Your task to perform on an android device: choose inbox layout in the gmail app Image 0: 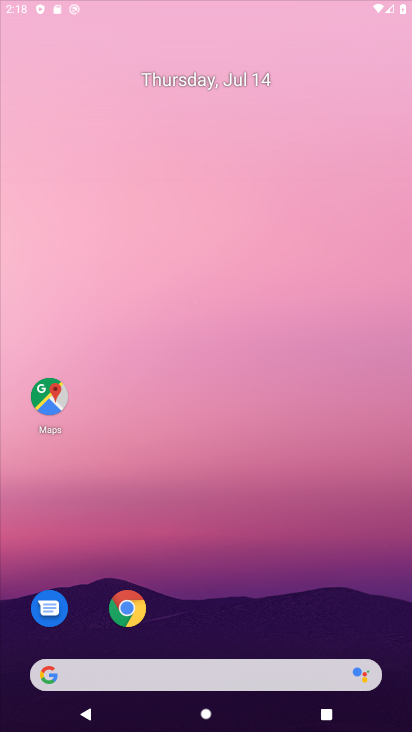
Step 0: press home button
Your task to perform on an android device: choose inbox layout in the gmail app Image 1: 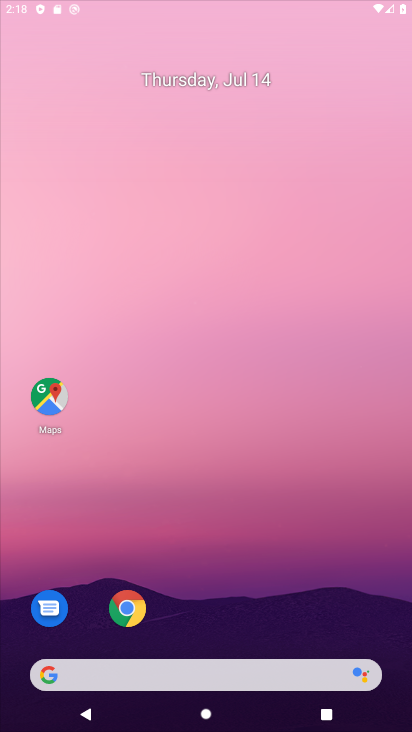
Step 1: click (285, 170)
Your task to perform on an android device: choose inbox layout in the gmail app Image 2: 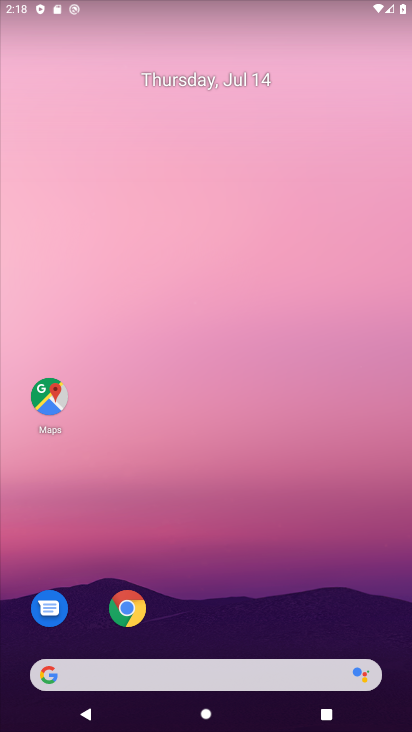
Step 2: drag from (202, 612) to (236, 178)
Your task to perform on an android device: choose inbox layout in the gmail app Image 3: 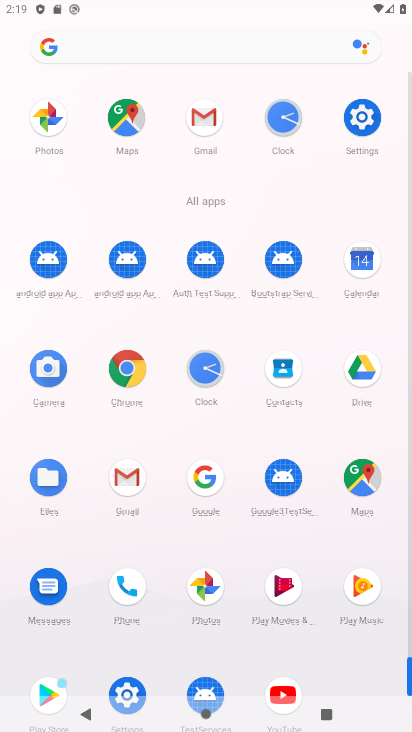
Step 3: click (200, 118)
Your task to perform on an android device: choose inbox layout in the gmail app Image 4: 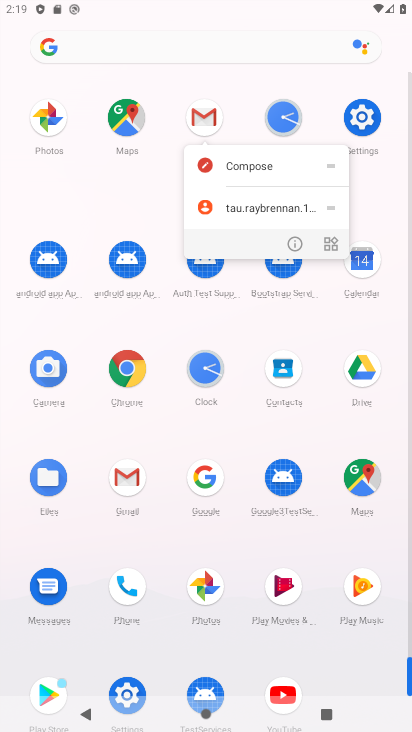
Step 4: click (296, 241)
Your task to perform on an android device: choose inbox layout in the gmail app Image 5: 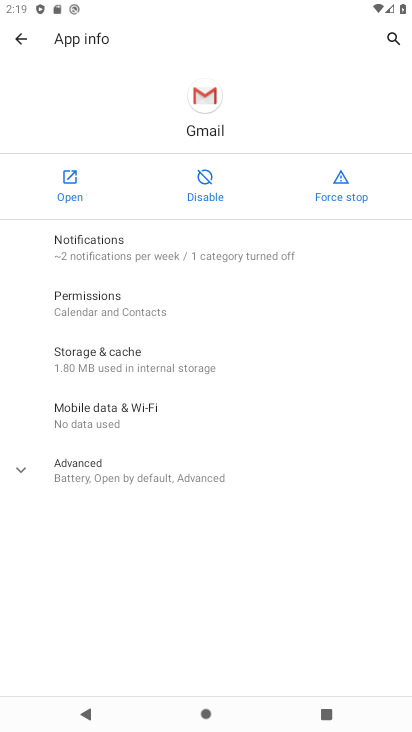
Step 5: click (70, 170)
Your task to perform on an android device: choose inbox layout in the gmail app Image 6: 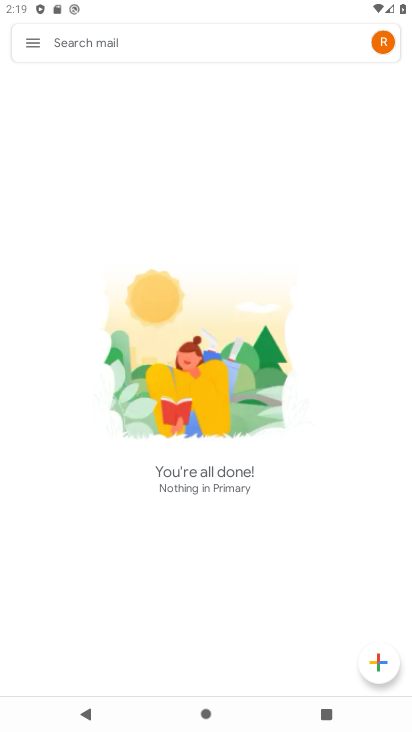
Step 6: click (29, 47)
Your task to perform on an android device: choose inbox layout in the gmail app Image 7: 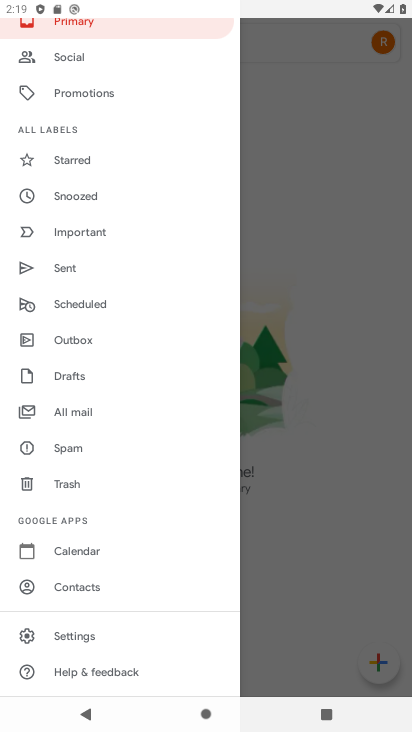
Step 7: drag from (91, 44) to (147, 729)
Your task to perform on an android device: choose inbox layout in the gmail app Image 8: 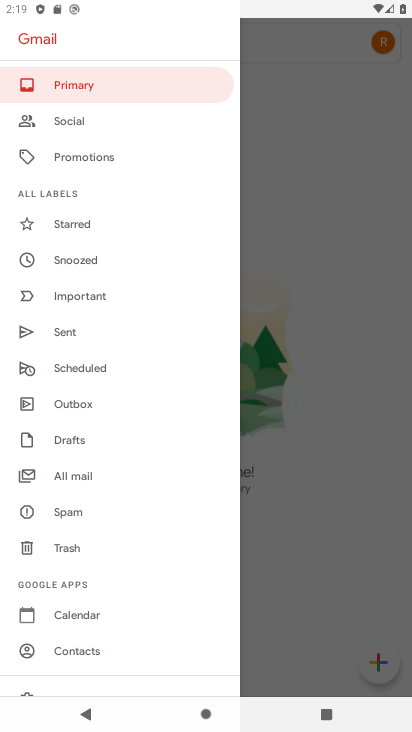
Step 8: drag from (84, 113) to (168, 462)
Your task to perform on an android device: choose inbox layout in the gmail app Image 9: 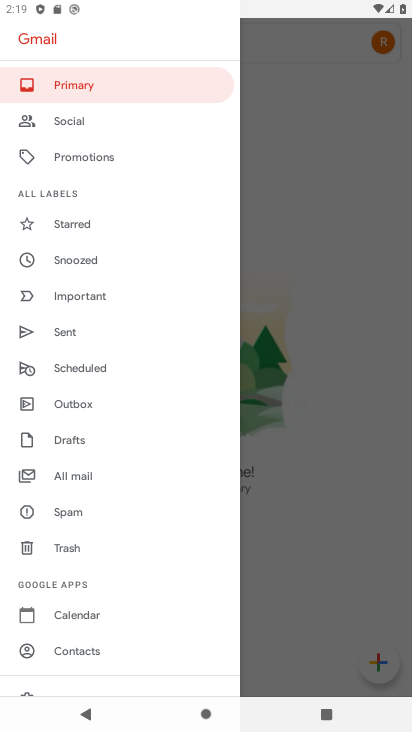
Step 9: click (74, 73)
Your task to perform on an android device: choose inbox layout in the gmail app Image 10: 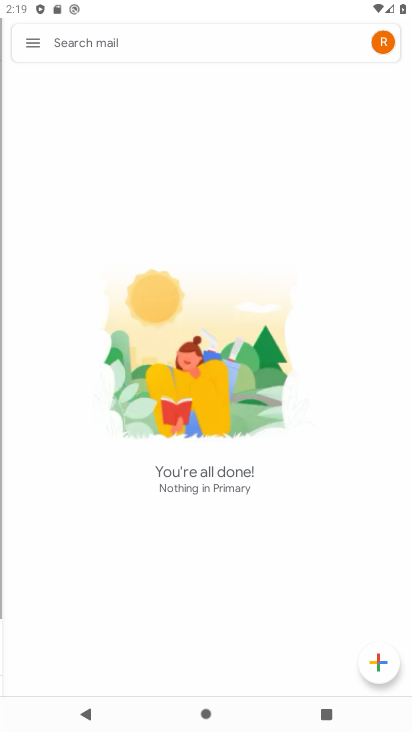
Step 10: click (90, 76)
Your task to perform on an android device: choose inbox layout in the gmail app Image 11: 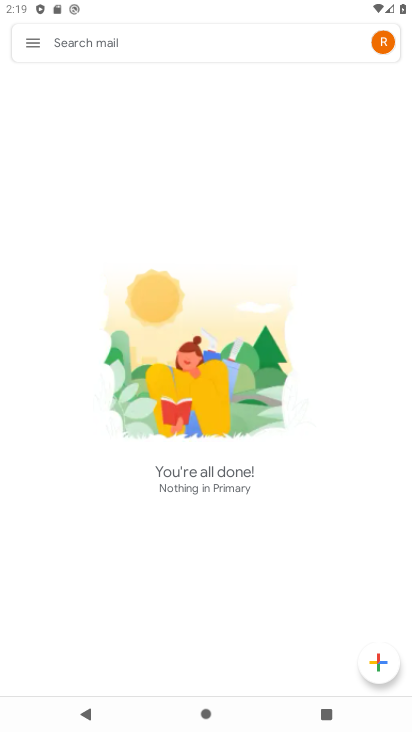
Step 11: drag from (92, 200) to (248, 532)
Your task to perform on an android device: choose inbox layout in the gmail app Image 12: 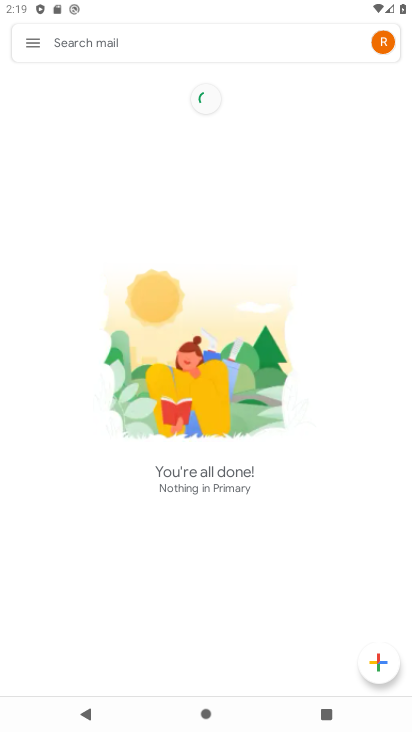
Step 12: drag from (190, 141) to (226, 507)
Your task to perform on an android device: choose inbox layout in the gmail app Image 13: 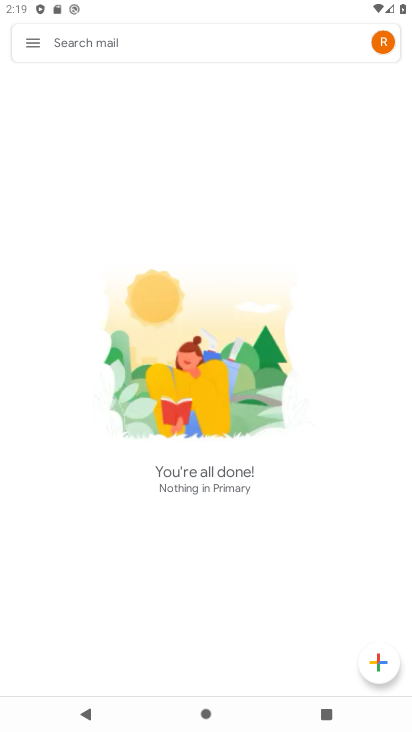
Step 13: drag from (110, 526) to (179, 213)
Your task to perform on an android device: choose inbox layout in the gmail app Image 14: 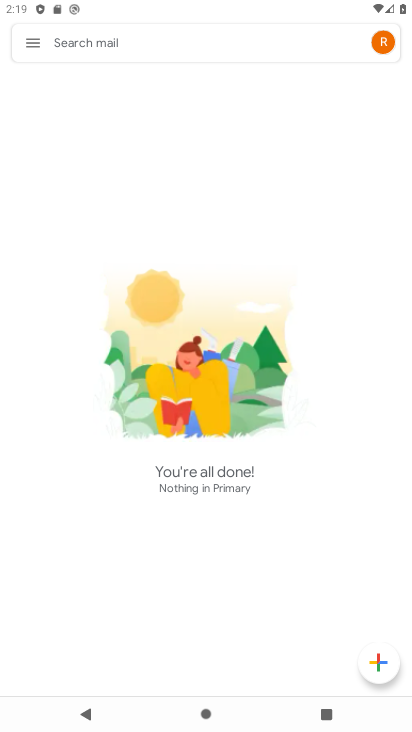
Step 14: drag from (149, 428) to (175, 301)
Your task to perform on an android device: choose inbox layout in the gmail app Image 15: 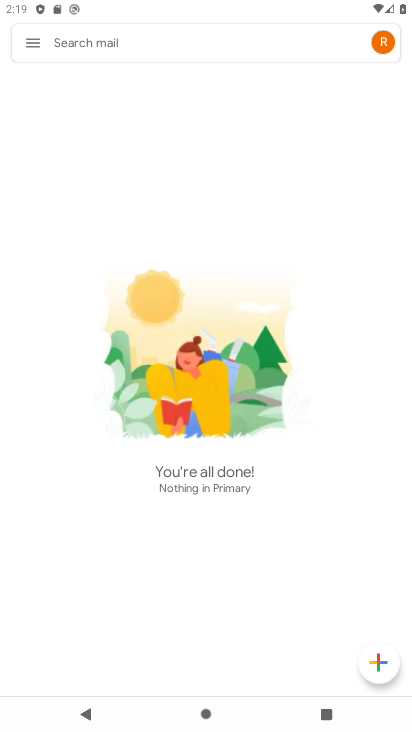
Step 15: click (193, 91)
Your task to perform on an android device: choose inbox layout in the gmail app Image 16: 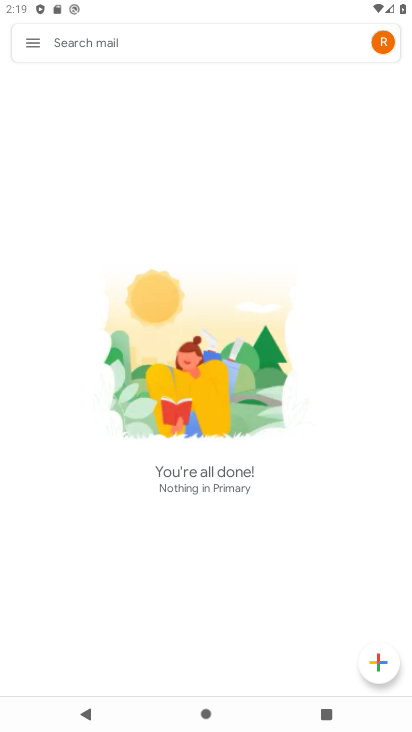
Step 16: drag from (193, 413) to (199, 455)
Your task to perform on an android device: choose inbox layout in the gmail app Image 17: 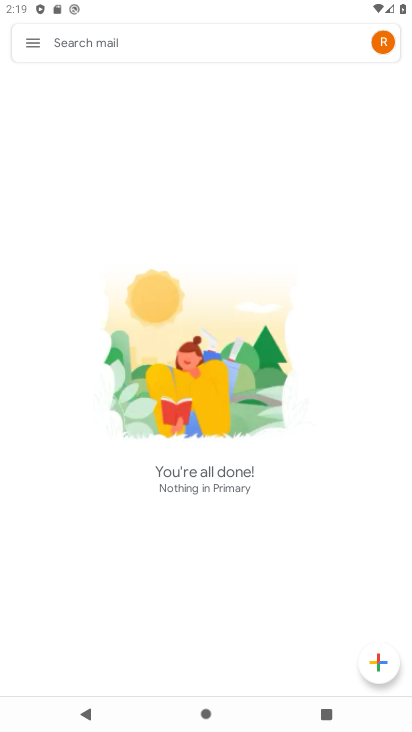
Step 17: click (221, 466)
Your task to perform on an android device: choose inbox layout in the gmail app Image 18: 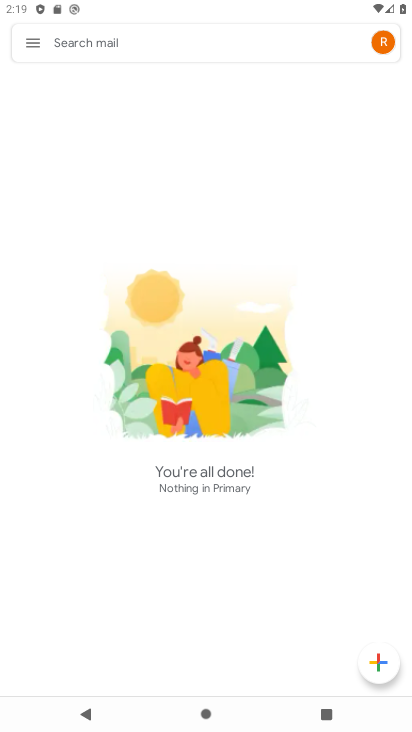
Step 18: click (209, 232)
Your task to perform on an android device: choose inbox layout in the gmail app Image 19: 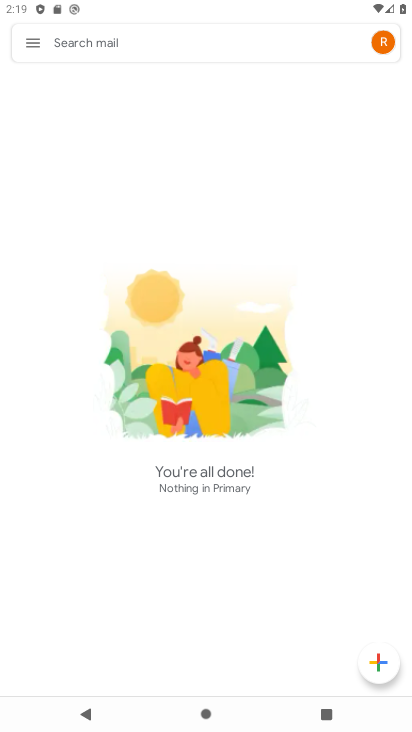
Step 19: click (225, 618)
Your task to perform on an android device: choose inbox layout in the gmail app Image 20: 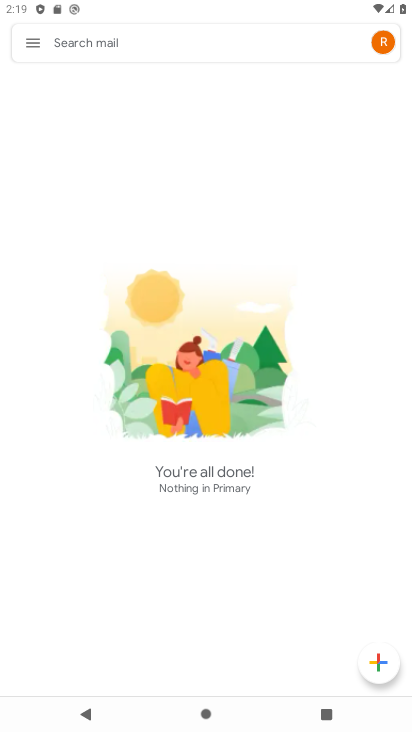
Step 20: click (234, 578)
Your task to perform on an android device: choose inbox layout in the gmail app Image 21: 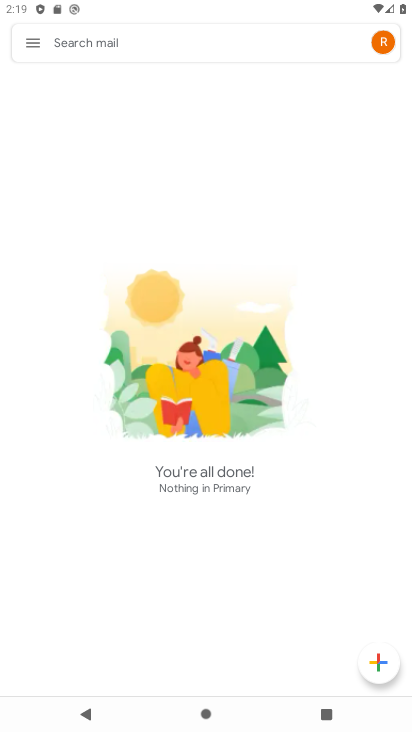
Step 21: click (30, 39)
Your task to perform on an android device: choose inbox layout in the gmail app Image 22: 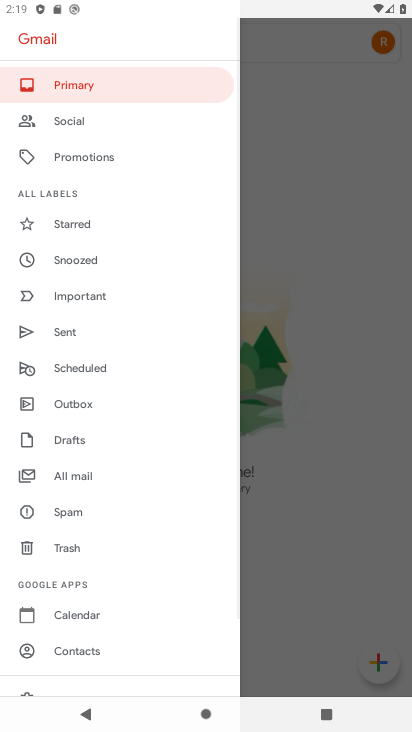
Step 22: drag from (89, 465) to (121, 262)
Your task to perform on an android device: choose inbox layout in the gmail app Image 23: 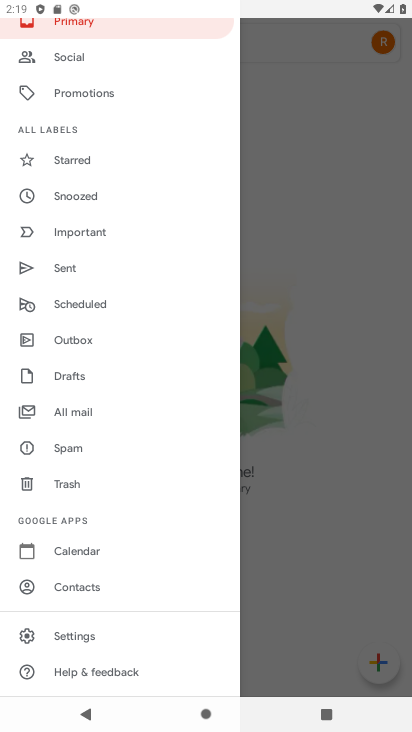
Step 23: drag from (110, 607) to (176, 304)
Your task to perform on an android device: choose inbox layout in the gmail app Image 24: 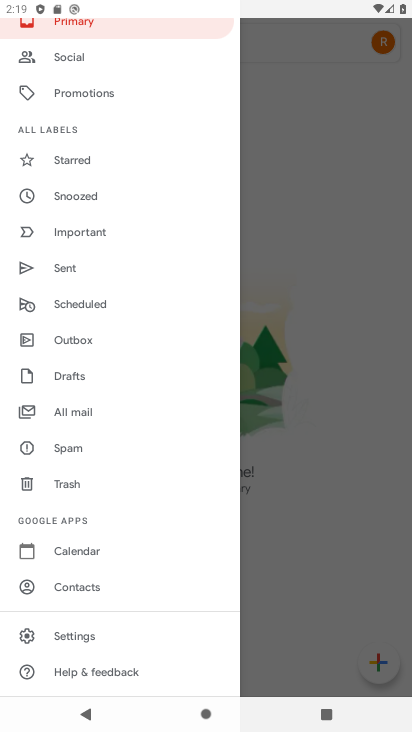
Step 24: drag from (90, 631) to (126, 427)
Your task to perform on an android device: choose inbox layout in the gmail app Image 25: 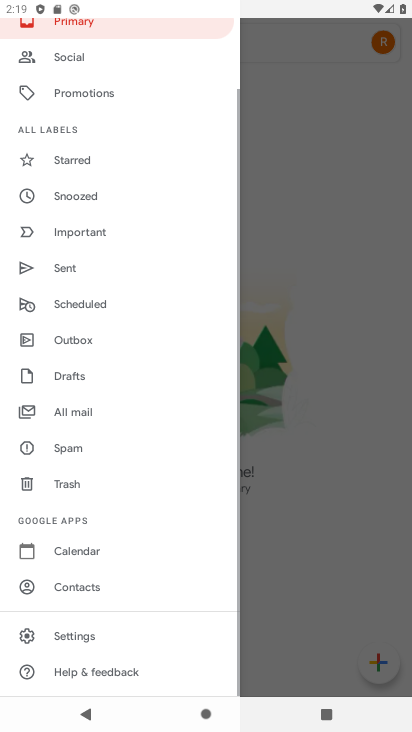
Step 25: drag from (63, 537) to (85, 350)
Your task to perform on an android device: choose inbox layout in the gmail app Image 26: 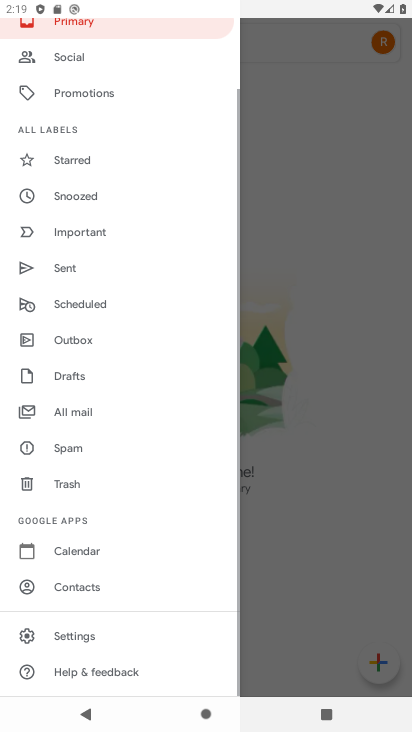
Step 26: drag from (101, 586) to (111, 374)
Your task to perform on an android device: choose inbox layout in the gmail app Image 27: 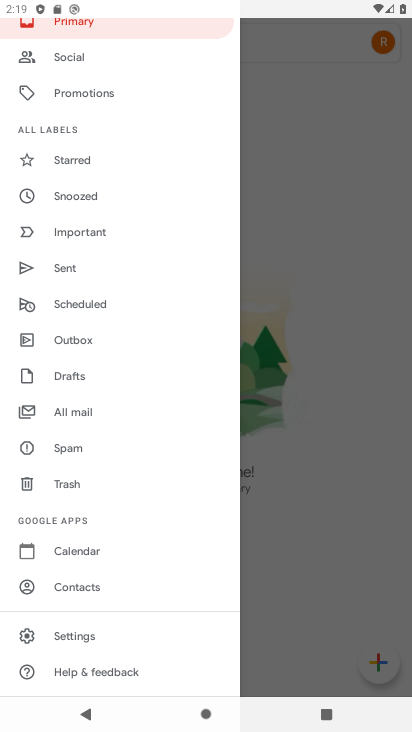
Step 27: drag from (109, 627) to (135, 403)
Your task to perform on an android device: choose inbox layout in the gmail app Image 28: 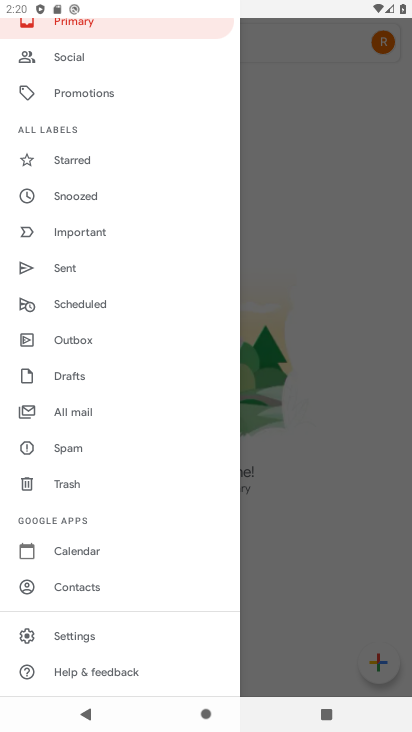
Step 28: click (92, 28)
Your task to perform on an android device: choose inbox layout in the gmail app Image 29: 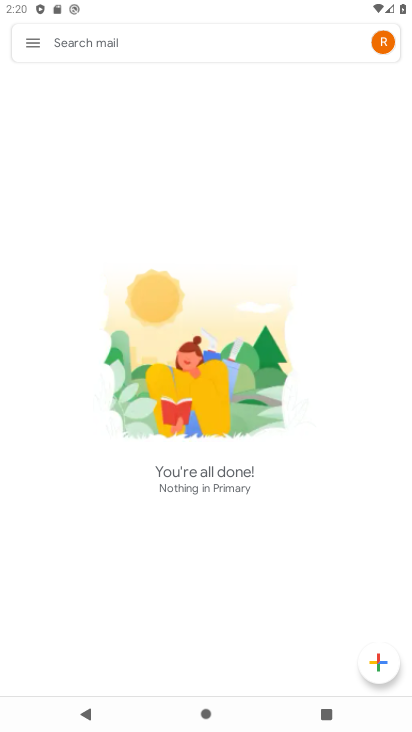
Step 29: task complete